Your task to perform on an android device: check data usage Image 0: 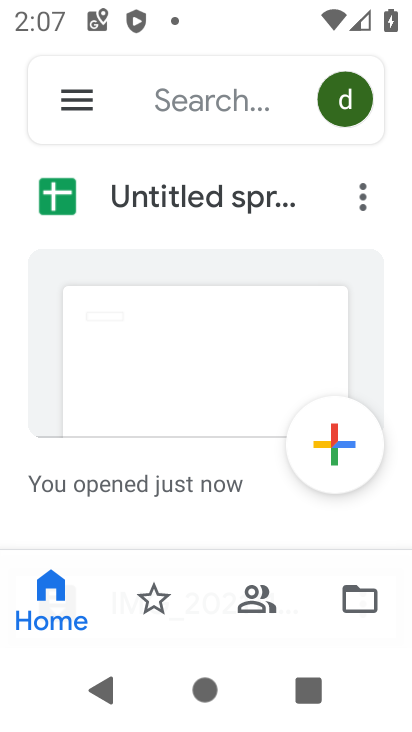
Step 0: press back button
Your task to perform on an android device: check data usage Image 1: 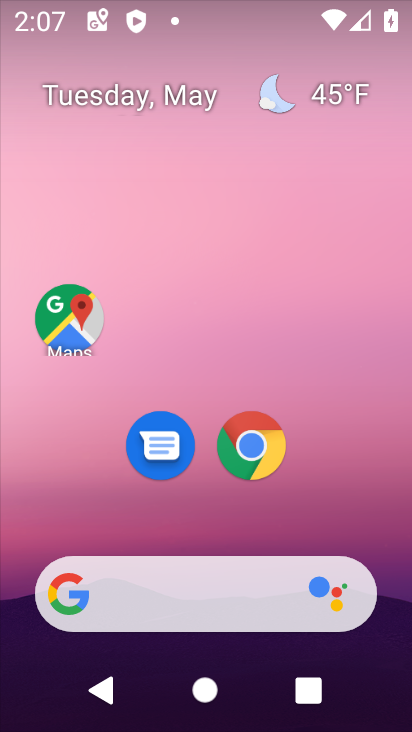
Step 1: drag from (235, 549) to (317, 31)
Your task to perform on an android device: check data usage Image 2: 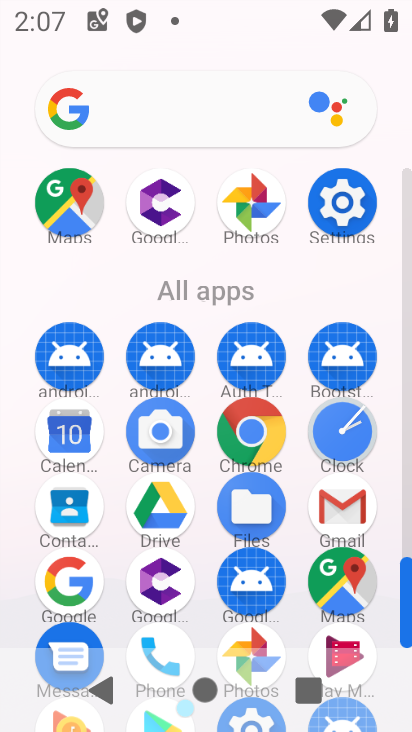
Step 2: click (368, 203)
Your task to perform on an android device: check data usage Image 3: 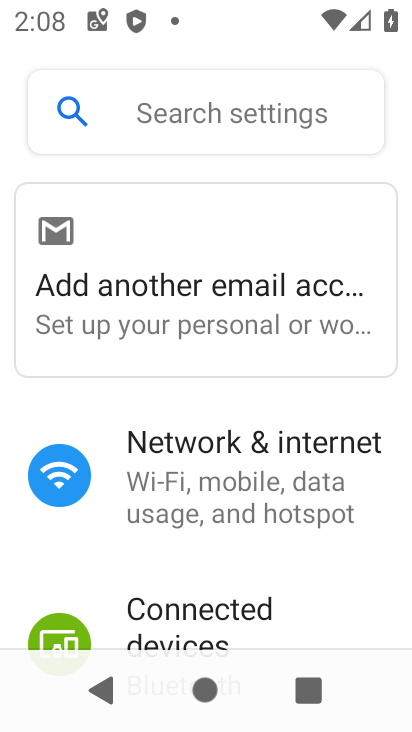
Step 3: click (214, 472)
Your task to perform on an android device: check data usage Image 4: 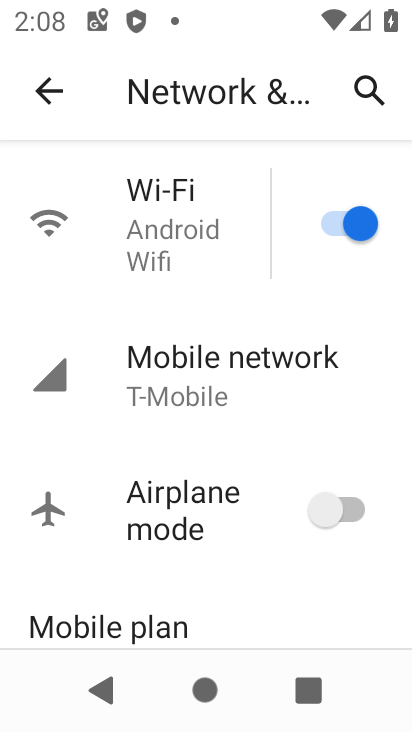
Step 4: click (199, 394)
Your task to perform on an android device: check data usage Image 5: 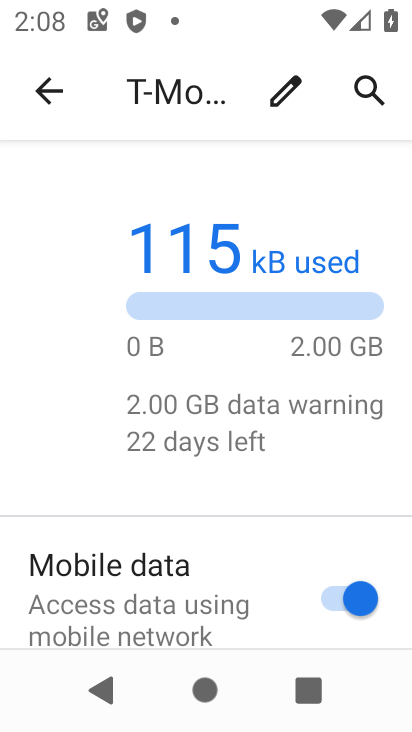
Step 5: drag from (184, 609) to (296, 115)
Your task to perform on an android device: check data usage Image 6: 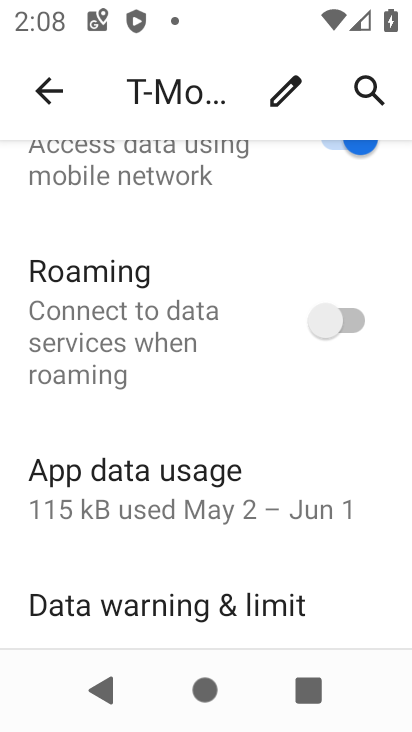
Step 6: click (133, 506)
Your task to perform on an android device: check data usage Image 7: 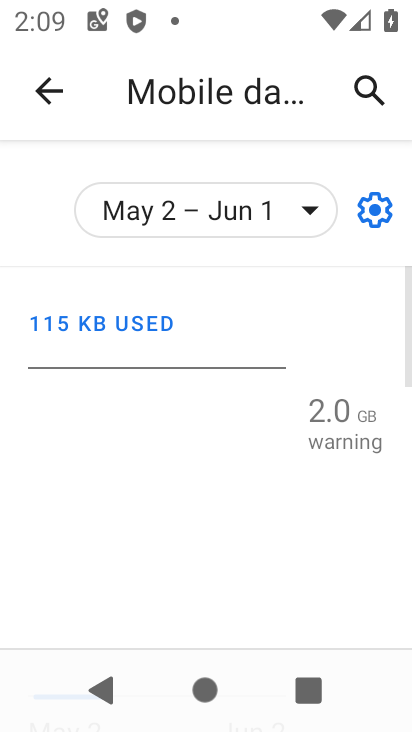
Step 7: task complete